Your task to perform on an android device: Open Reddit.com Image 0: 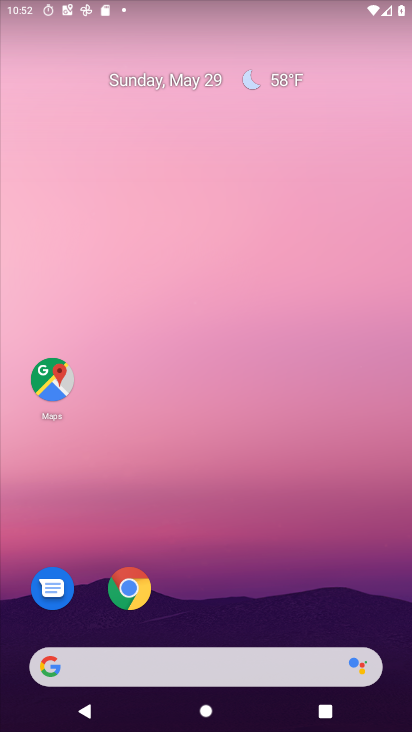
Step 0: drag from (269, 697) to (172, 238)
Your task to perform on an android device: Open Reddit.com Image 1: 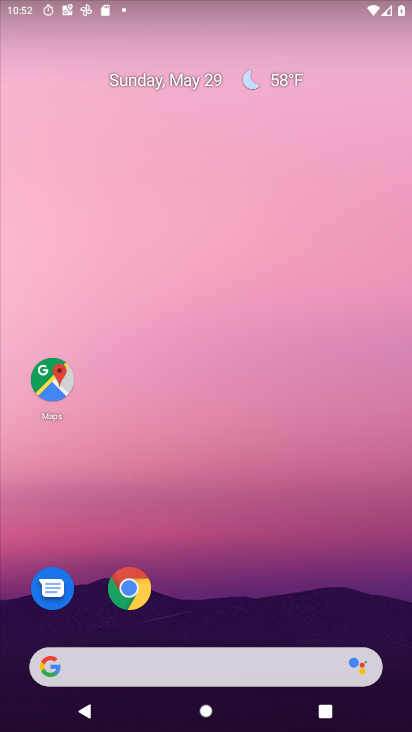
Step 1: drag from (173, 139) to (95, 87)
Your task to perform on an android device: Open Reddit.com Image 2: 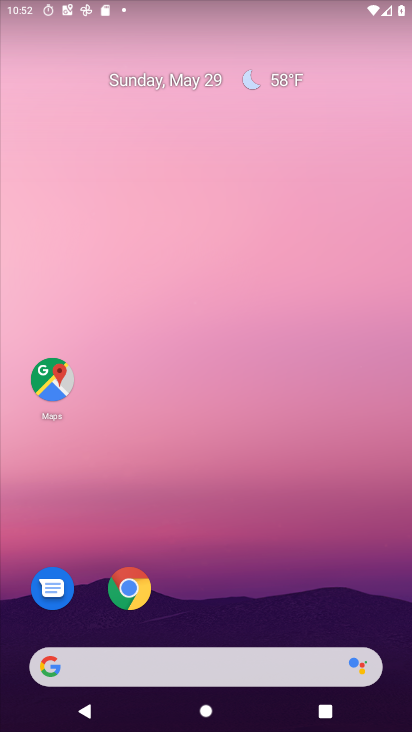
Step 2: drag from (166, 439) to (117, 108)
Your task to perform on an android device: Open Reddit.com Image 3: 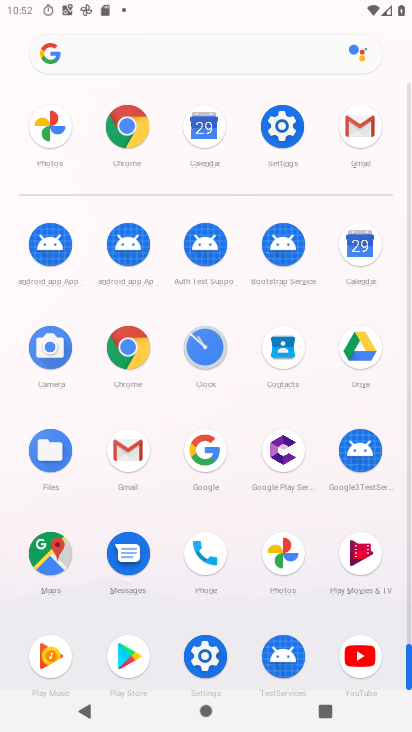
Step 3: drag from (241, 553) to (195, 69)
Your task to perform on an android device: Open Reddit.com Image 4: 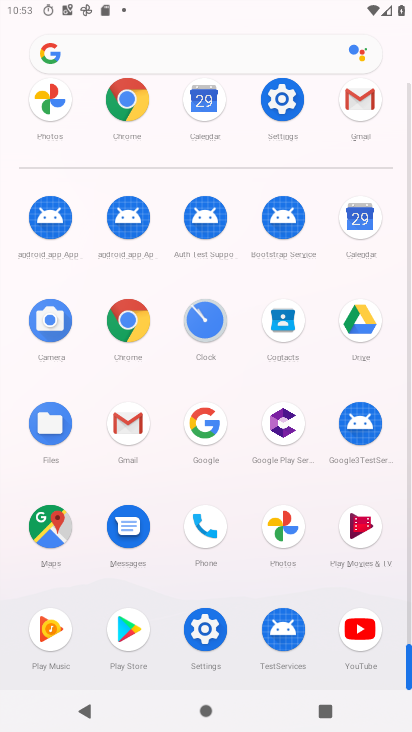
Step 4: click (131, 96)
Your task to perform on an android device: Open Reddit.com Image 5: 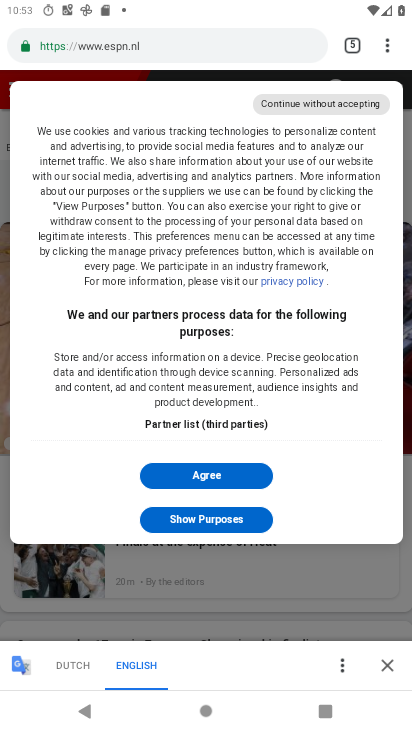
Step 5: click (139, 93)
Your task to perform on an android device: Open Reddit.com Image 6: 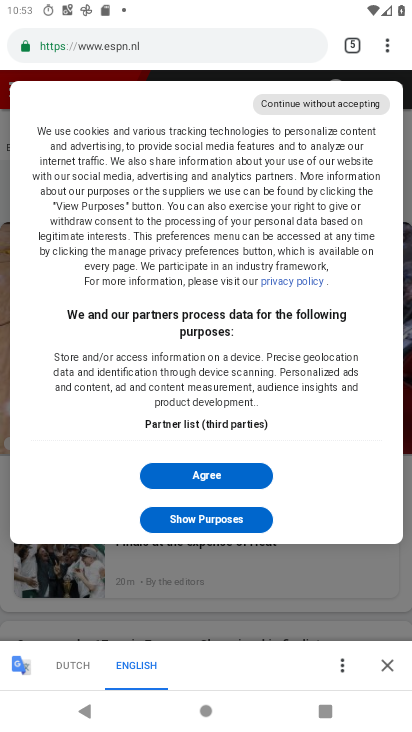
Step 6: click (135, 98)
Your task to perform on an android device: Open Reddit.com Image 7: 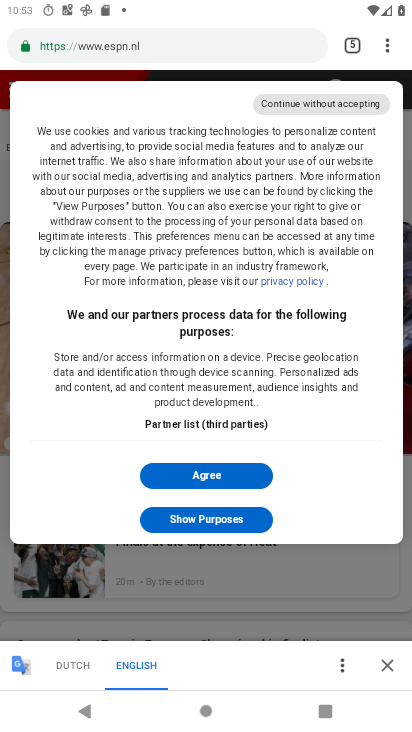
Step 7: click (135, 98)
Your task to perform on an android device: Open Reddit.com Image 8: 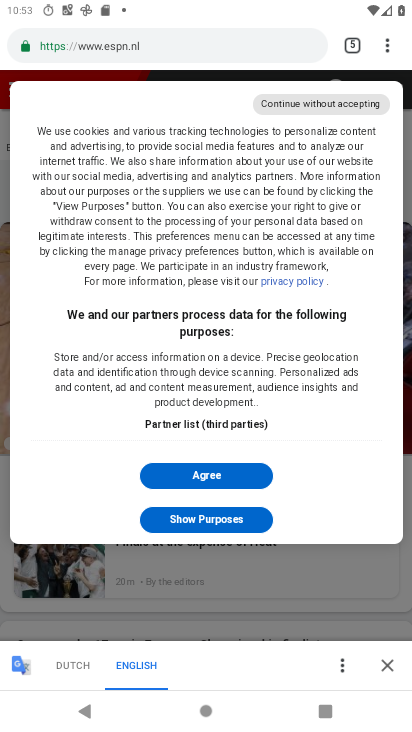
Step 8: click (385, 46)
Your task to perform on an android device: Open Reddit.com Image 9: 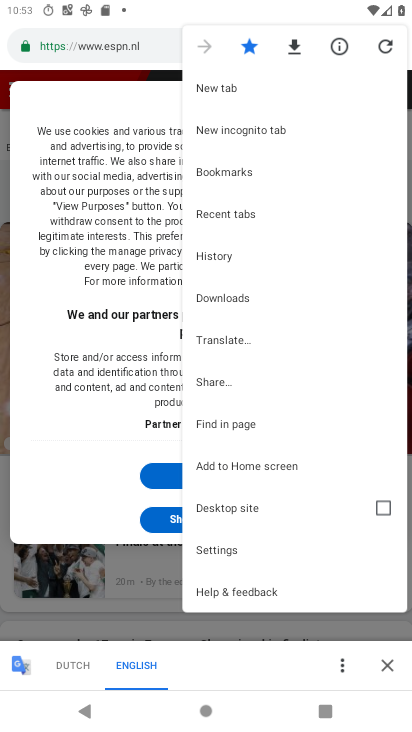
Step 9: click (387, 43)
Your task to perform on an android device: Open Reddit.com Image 10: 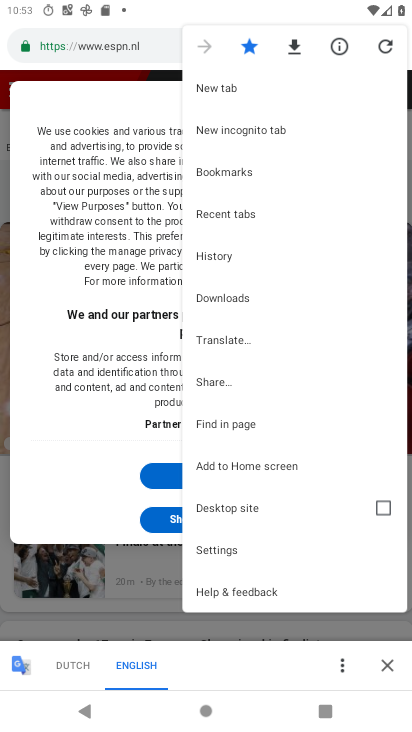
Step 10: click (205, 86)
Your task to perform on an android device: Open Reddit.com Image 11: 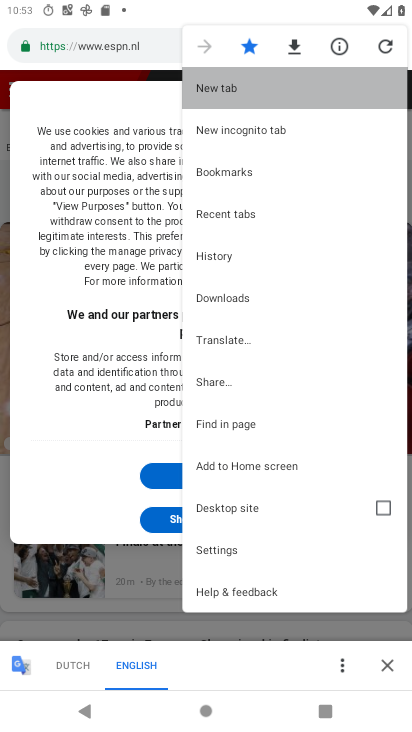
Step 11: click (209, 85)
Your task to perform on an android device: Open Reddit.com Image 12: 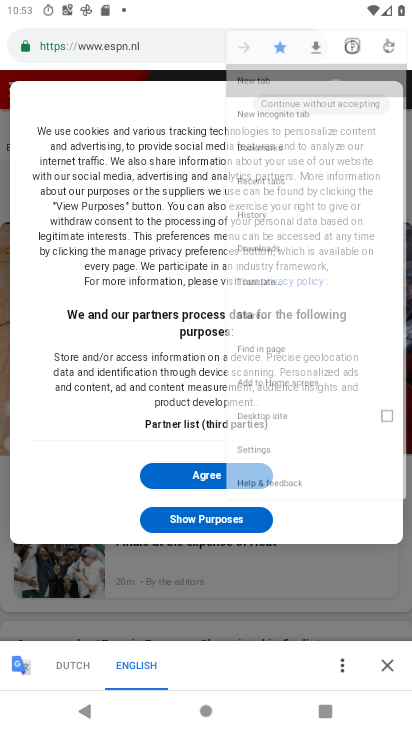
Step 12: click (209, 85)
Your task to perform on an android device: Open Reddit.com Image 13: 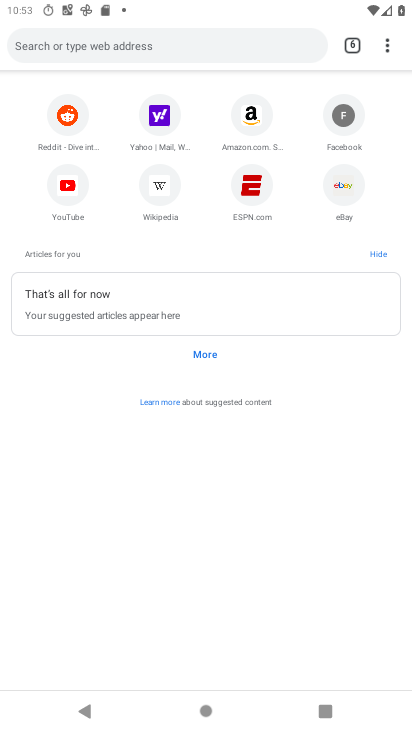
Step 13: click (208, 82)
Your task to perform on an android device: Open Reddit.com Image 14: 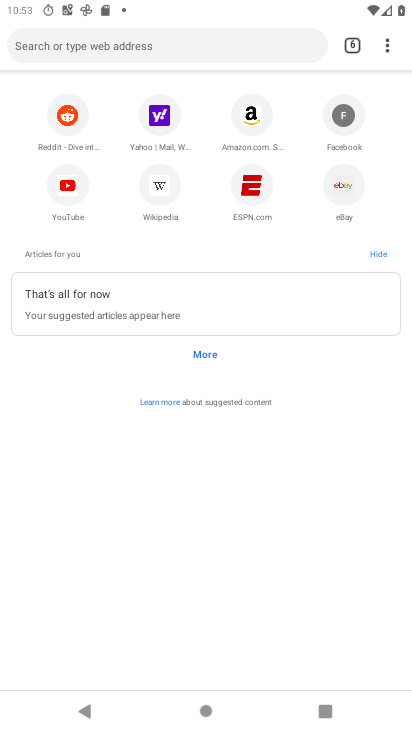
Step 14: click (79, 126)
Your task to perform on an android device: Open Reddit.com Image 15: 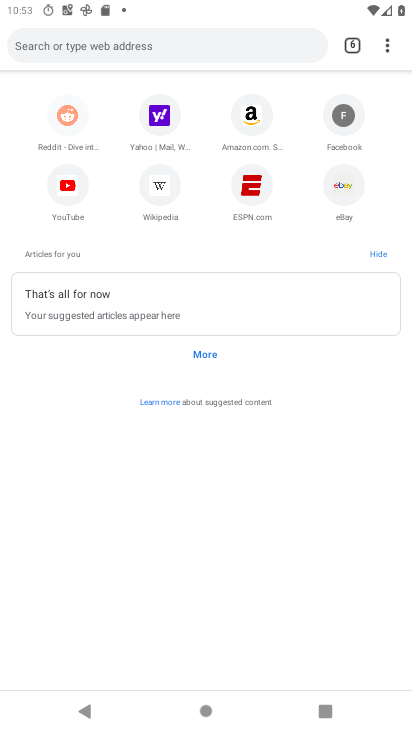
Step 15: click (79, 126)
Your task to perform on an android device: Open Reddit.com Image 16: 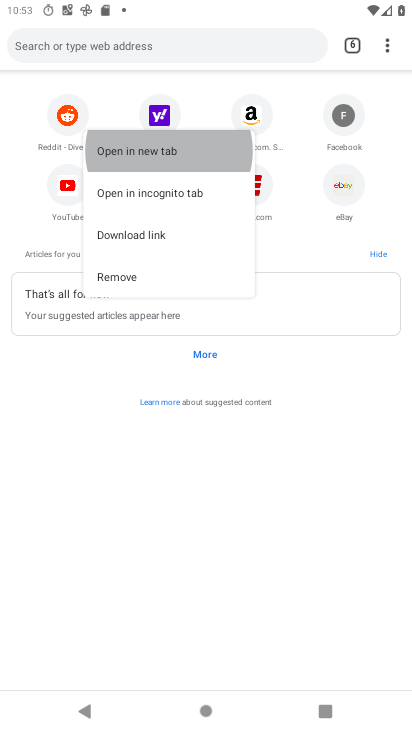
Step 16: click (80, 125)
Your task to perform on an android device: Open Reddit.com Image 17: 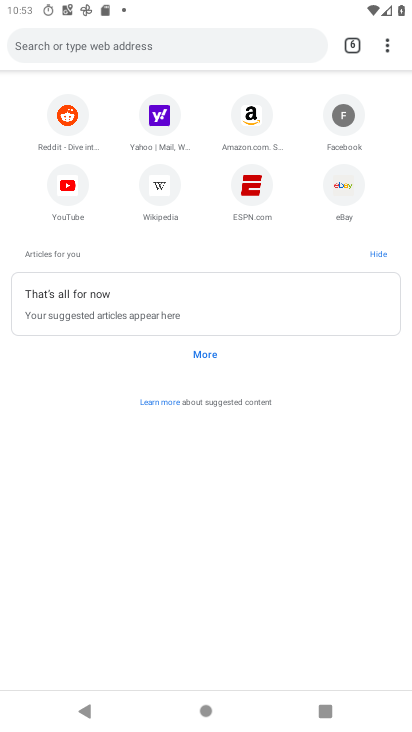
Step 17: click (80, 125)
Your task to perform on an android device: Open Reddit.com Image 18: 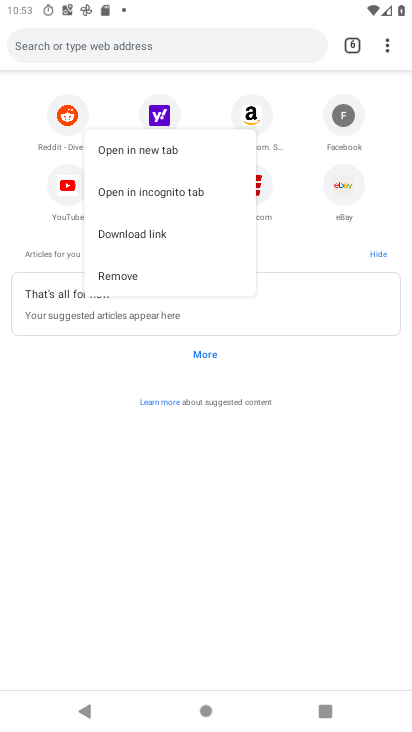
Step 18: click (125, 144)
Your task to perform on an android device: Open Reddit.com Image 19: 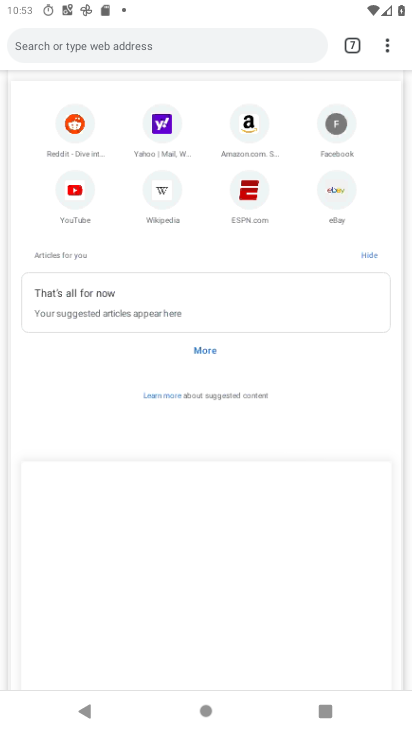
Step 19: click (125, 144)
Your task to perform on an android device: Open Reddit.com Image 20: 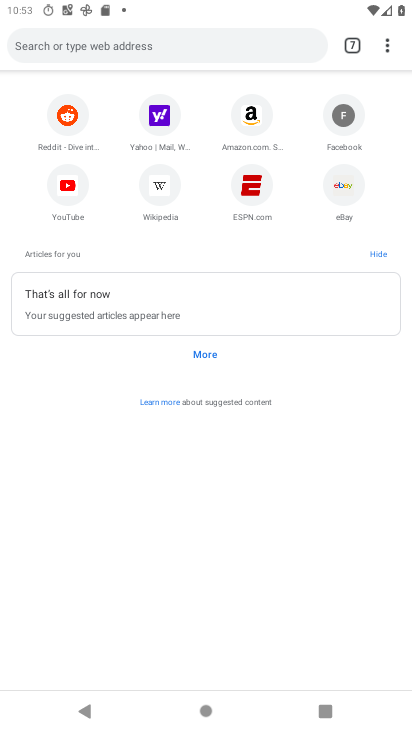
Step 20: click (131, 148)
Your task to perform on an android device: Open Reddit.com Image 21: 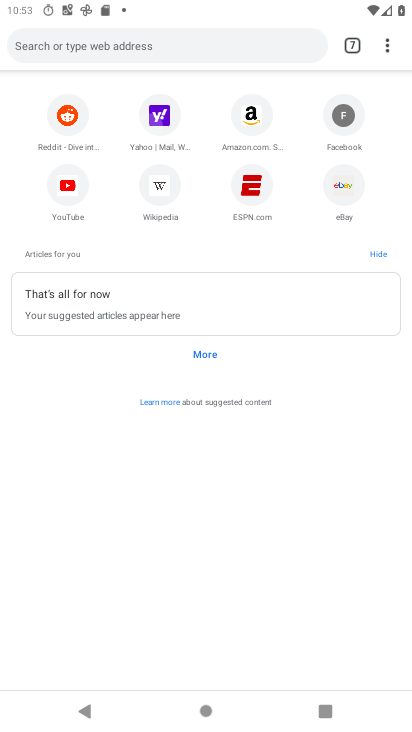
Step 21: click (131, 148)
Your task to perform on an android device: Open Reddit.com Image 22: 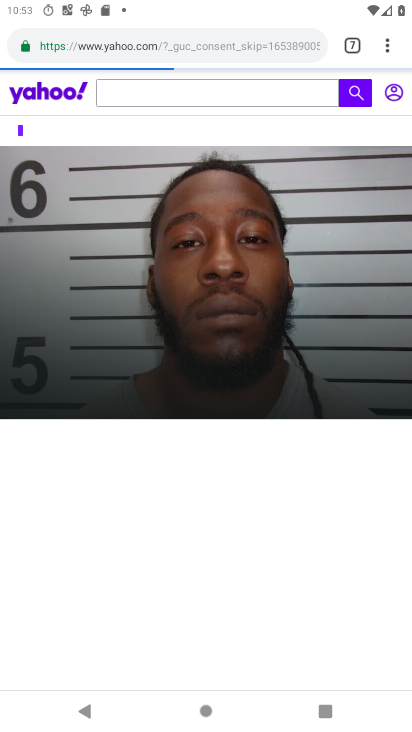
Step 22: click (52, 107)
Your task to perform on an android device: Open Reddit.com Image 23: 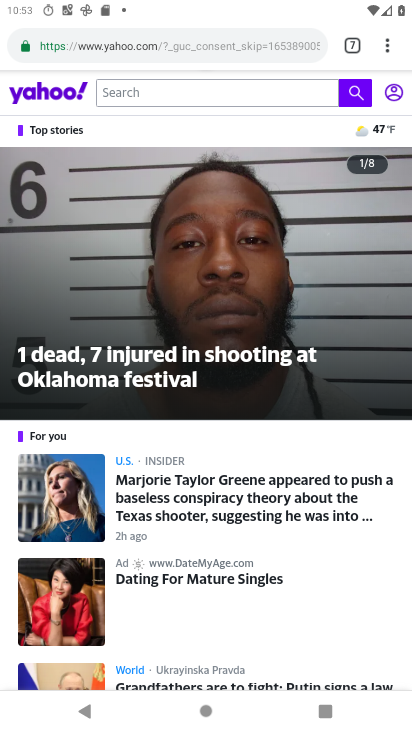
Step 23: task complete